Your task to perform on an android device: Show me productivity apps on the Play Store Image 0: 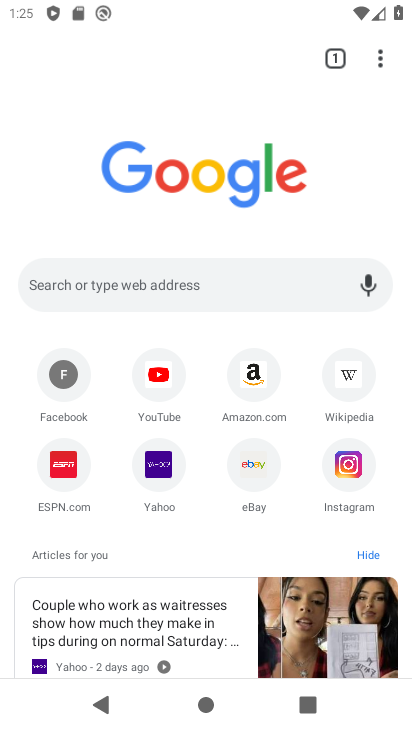
Step 0: press home button
Your task to perform on an android device: Show me productivity apps on the Play Store Image 1: 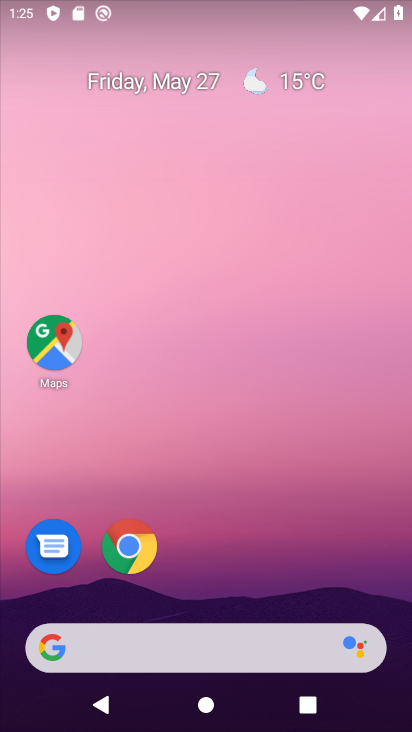
Step 1: drag from (291, 586) to (280, 231)
Your task to perform on an android device: Show me productivity apps on the Play Store Image 2: 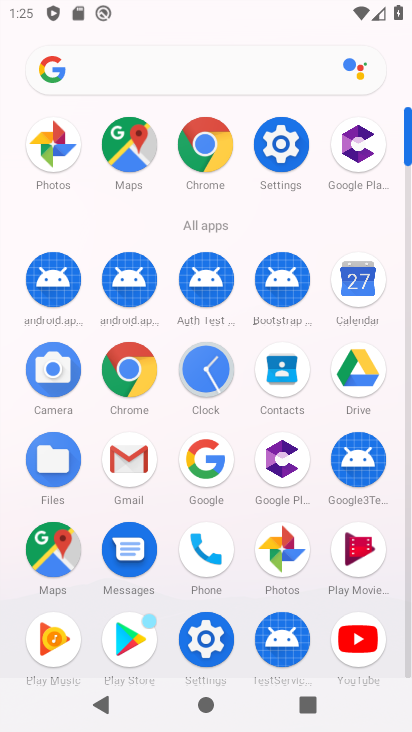
Step 2: click (124, 659)
Your task to perform on an android device: Show me productivity apps on the Play Store Image 3: 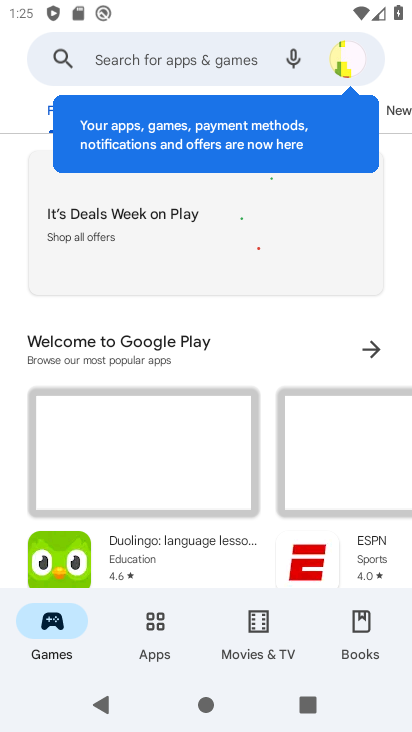
Step 3: click (160, 627)
Your task to perform on an android device: Show me productivity apps on the Play Store Image 4: 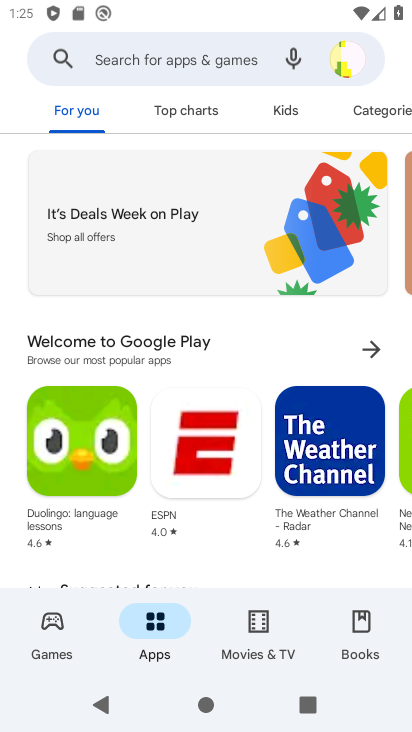
Step 4: click (391, 116)
Your task to perform on an android device: Show me productivity apps on the Play Store Image 5: 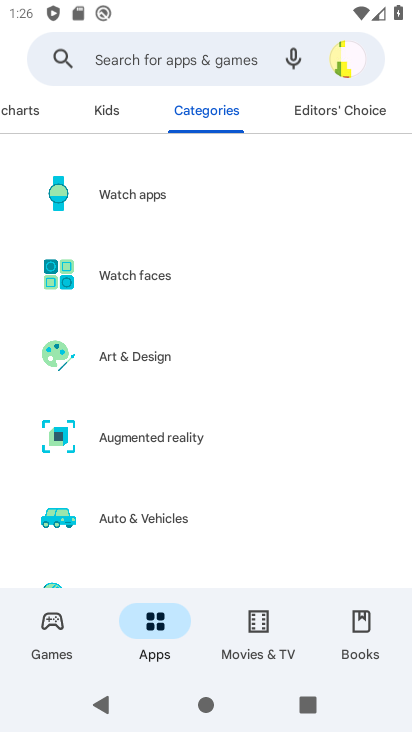
Step 5: drag from (215, 514) to (190, 220)
Your task to perform on an android device: Show me productivity apps on the Play Store Image 6: 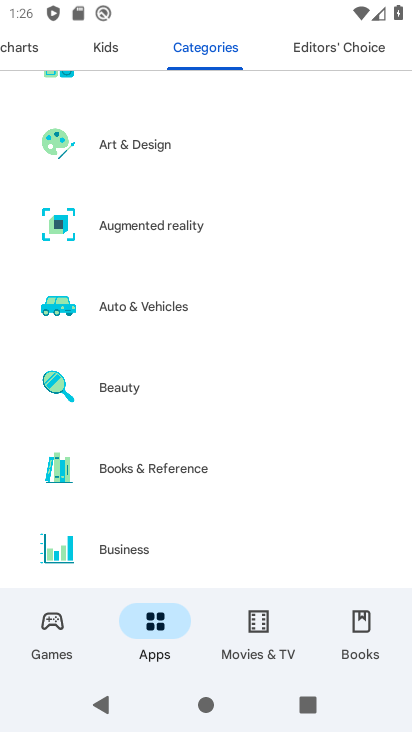
Step 6: drag from (169, 539) to (177, 169)
Your task to perform on an android device: Show me productivity apps on the Play Store Image 7: 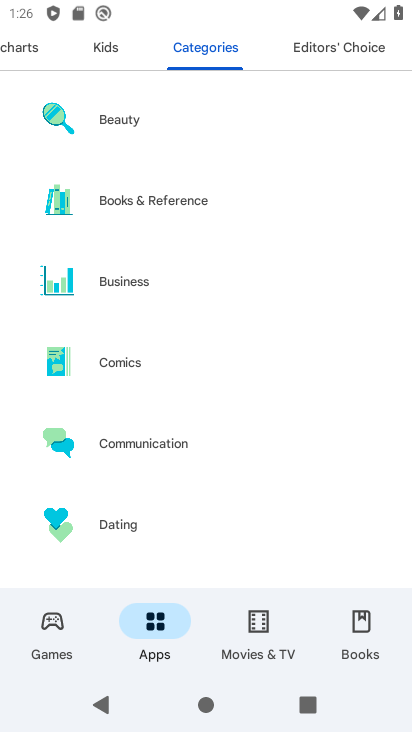
Step 7: drag from (175, 415) to (174, 208)
Your task to perform on an android device: Show me productivity apps on the Play Store Image 8: 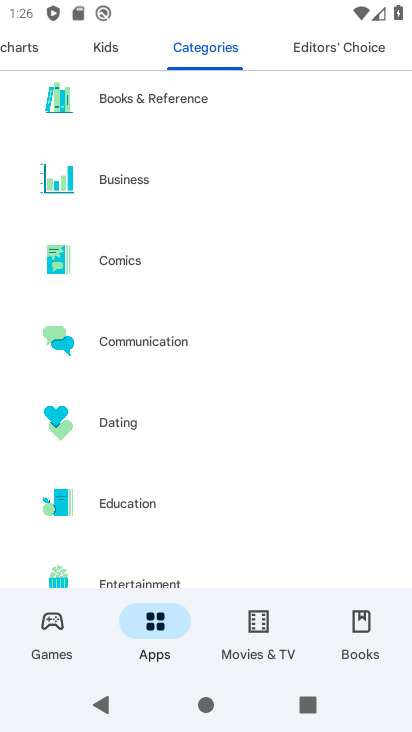
Step 8: drag from (188, 566) to (210, 255)
Your task to perform on an android device: Show me productivity apps on the Play Store Image 9: 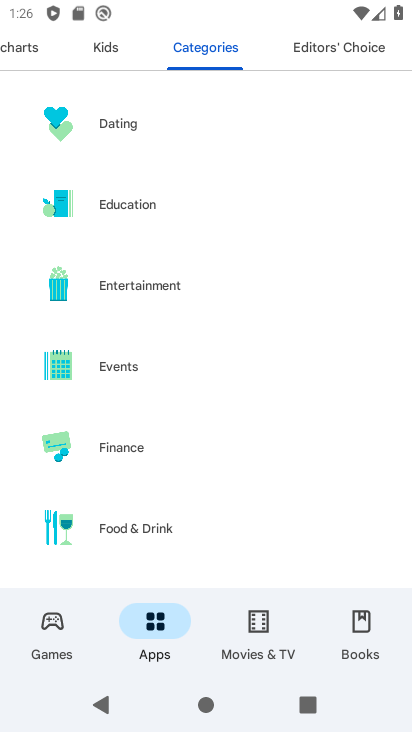
Step 9: drag from (190, 563) to (183, 236)
Your task to perform on an android device: Show me productivity apps on the Play Store Image 10: 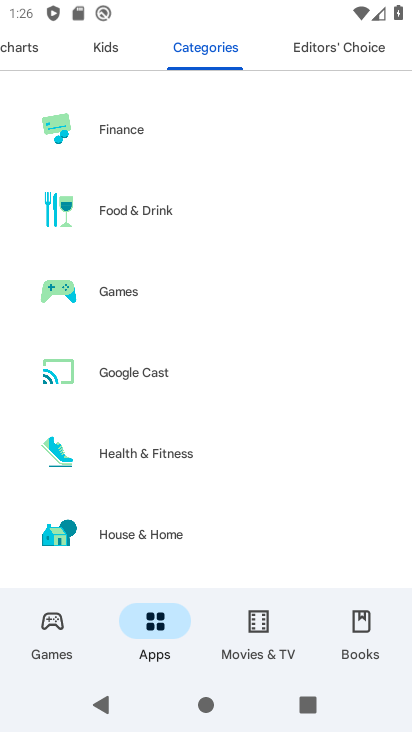
Step 10: drag from (164, 568) to (170, 252)
Your task to perform on an android device: Show me productivity apps on the Play Store Image 11: 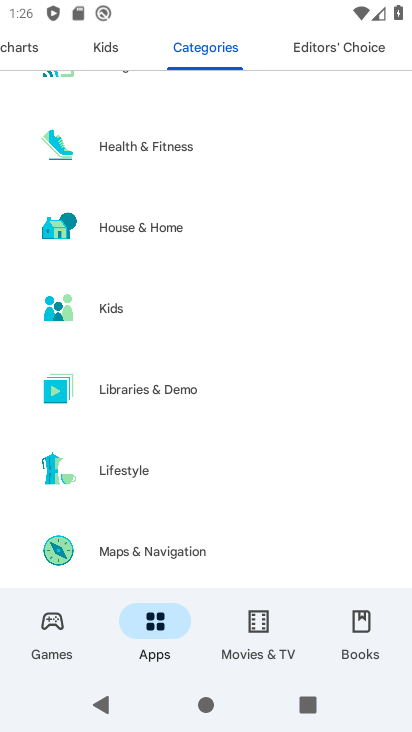
Step 11: drag from (126, 575) to (151, 243)
Your task to perform on an android device: Show me productivity apps on the Play Store Image 12: 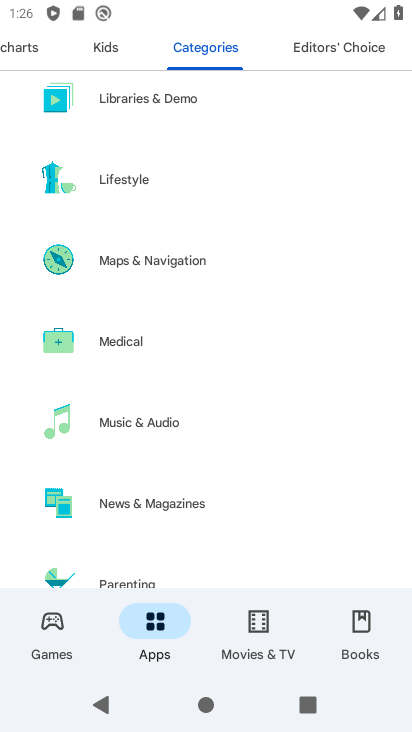
Step 12: drag from (158, 524) to (162, 207)
Your task to perform on an android device: Show me productivity apps on the Play Store Image 13: 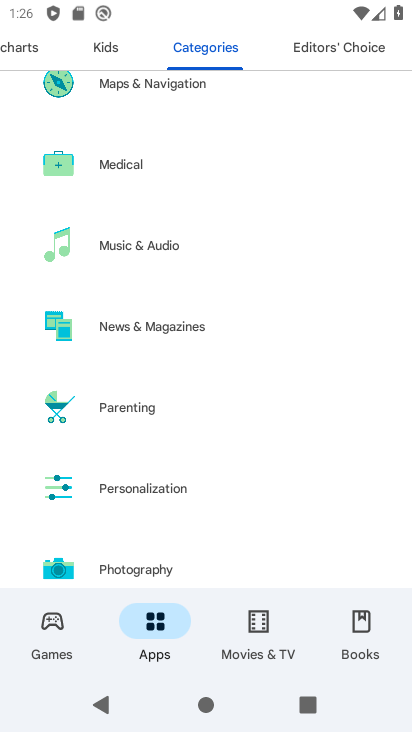
Step 13: drag from (170, 528) to (193, 233)
Your task to perform on an android device: Show me productivity apps on the Play Store Image 14: 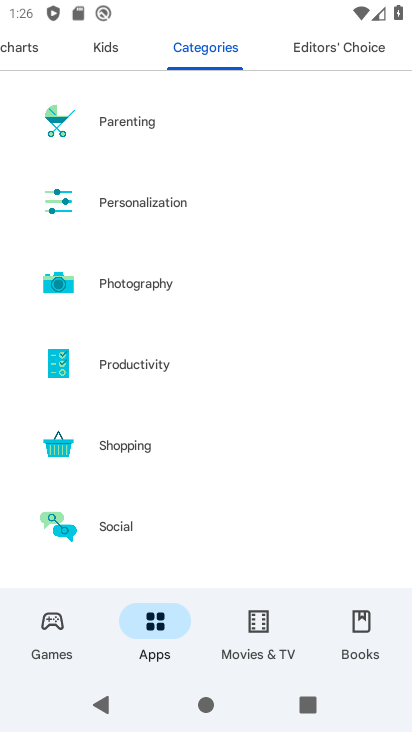
Step 14: click (179, 362)
Your task to perform on an android device: Show me productivity apps on the Play Store Image 15: 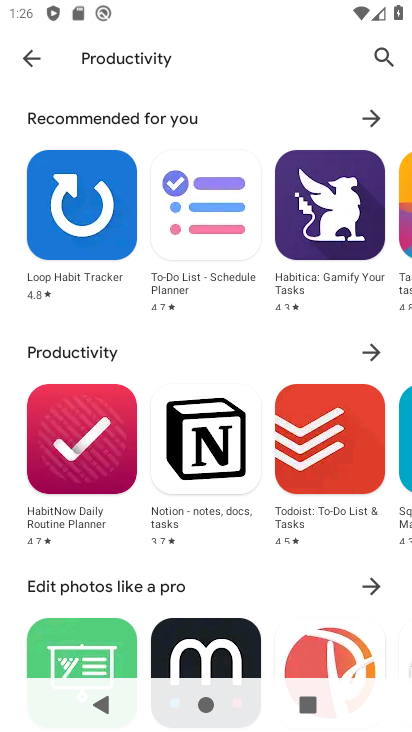
Step 15: task complete